Your task to perform on an android device: empty trash in the gmail app Image 0: 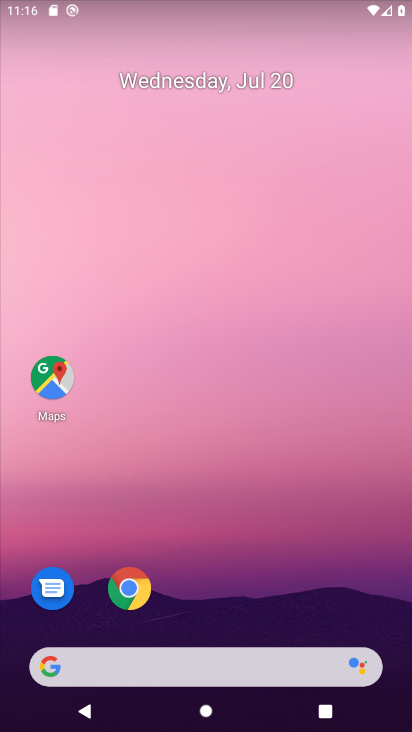
Step 0: drag from (205, 622) to (206, 18)
Your task to perform on an android device: empty trash in the gmail app Image 1: 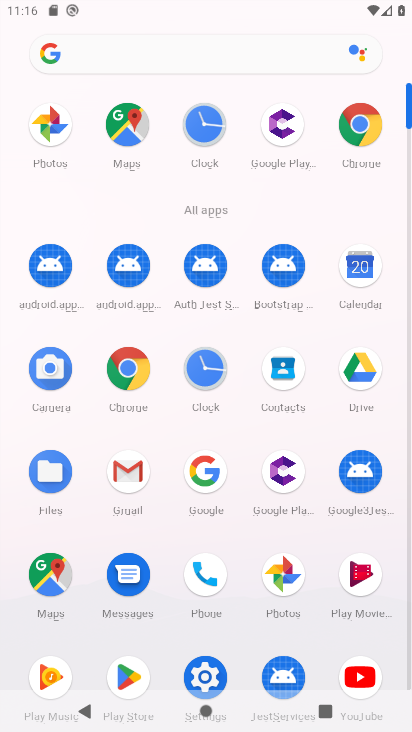
Step 1: click (124, 461)
Your task to perform on an android device: empty trash in the gmail app Image 2: 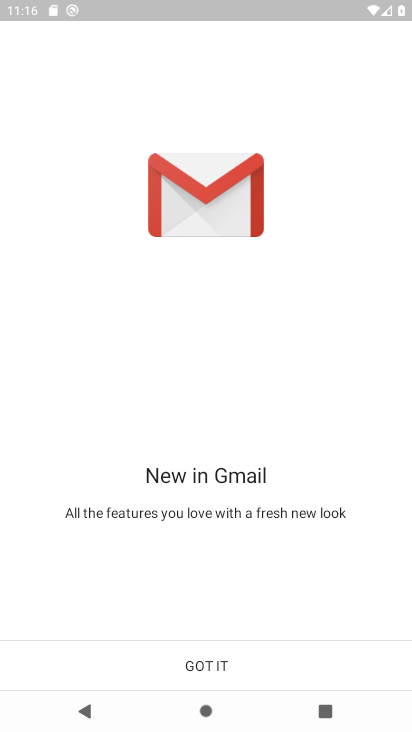
Step 2: click (207, 660)
Your task to perform on an android device: empty trash in the gmail app Image 3: 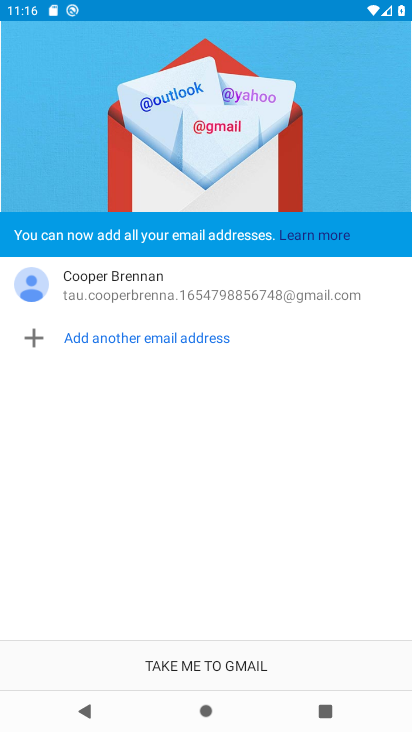
Step 3: click (201, 672)
Your task to perform on an android device: empty trash in the gmail app Image 4: 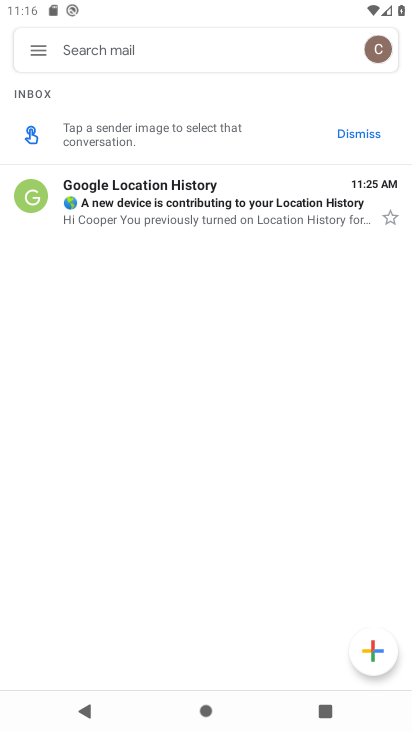
Step 4: click (39, 45)
Your task to perform on an android device: empty trash in the gmail app Image 5: 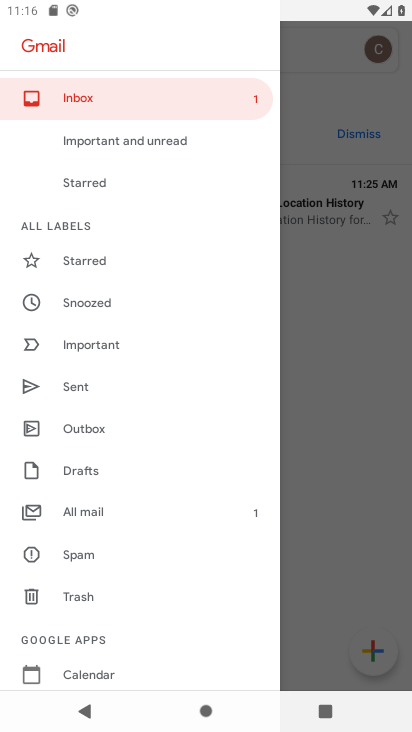
Step 5: click (84, 598)
Your task to perform on an android device: empty trash in the gmail app Image 6: 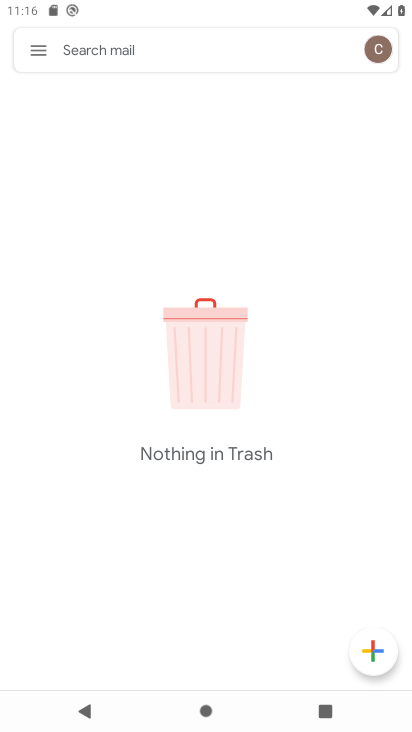
Step 6: task complete